Your task to perform on an android device: check google app version Image 0: 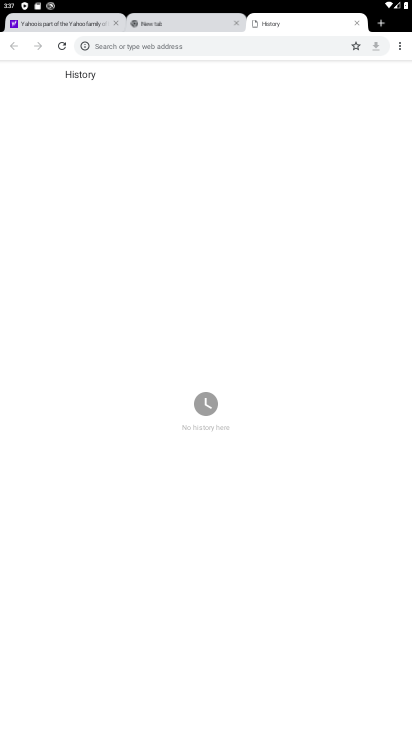
Step 0: press home button
Your task to perform on an android device: check google app version Image 1: 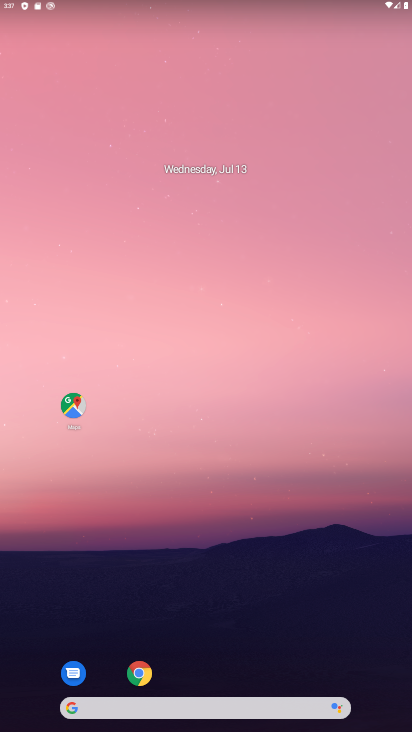
Step 1: drag from (238, 699) to (302, 259)
Your task to perform on an android device: check google app version Image 2: 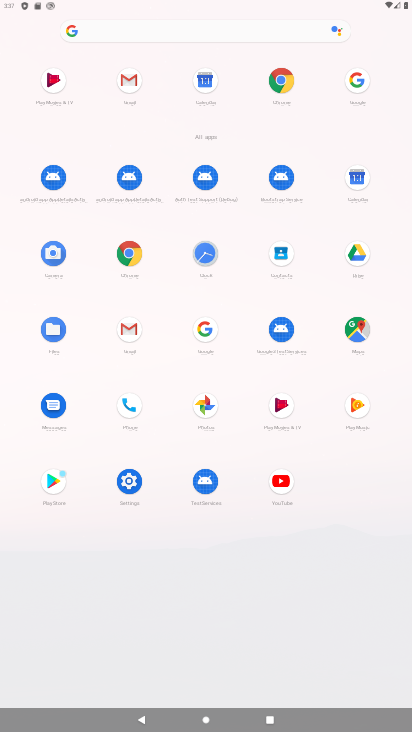
Step 2: click (206, 345)
Your task to perform on an android device: check google app version Image 3: 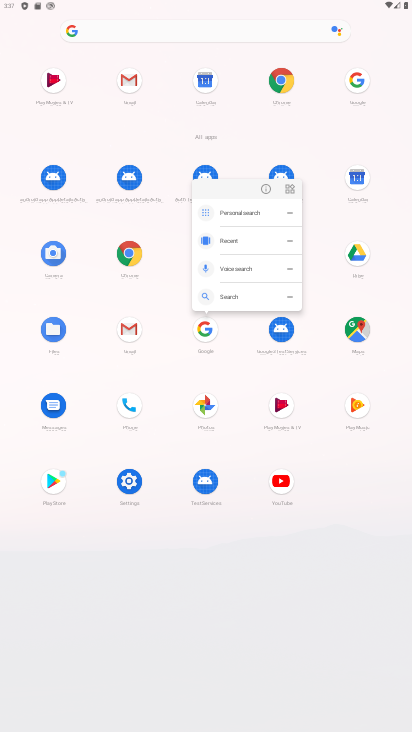
Step 3: click (263, 187)
Your task to perform on an android device: check google app version Image 4: 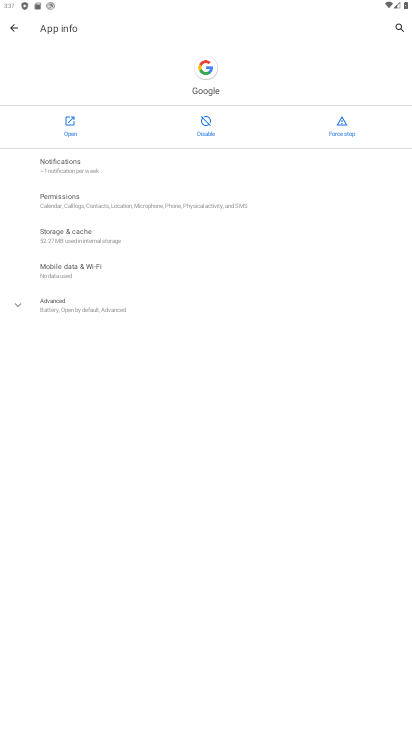
Step 4: click (77, 303)
Your task to perform on an android device: check google app version Image 5: 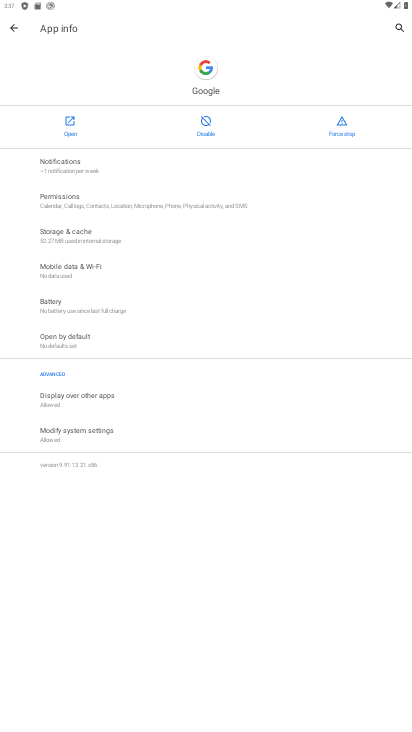
Step 5: task complete